Your task to perform on an android device: Go to ESPN.com Image 0: 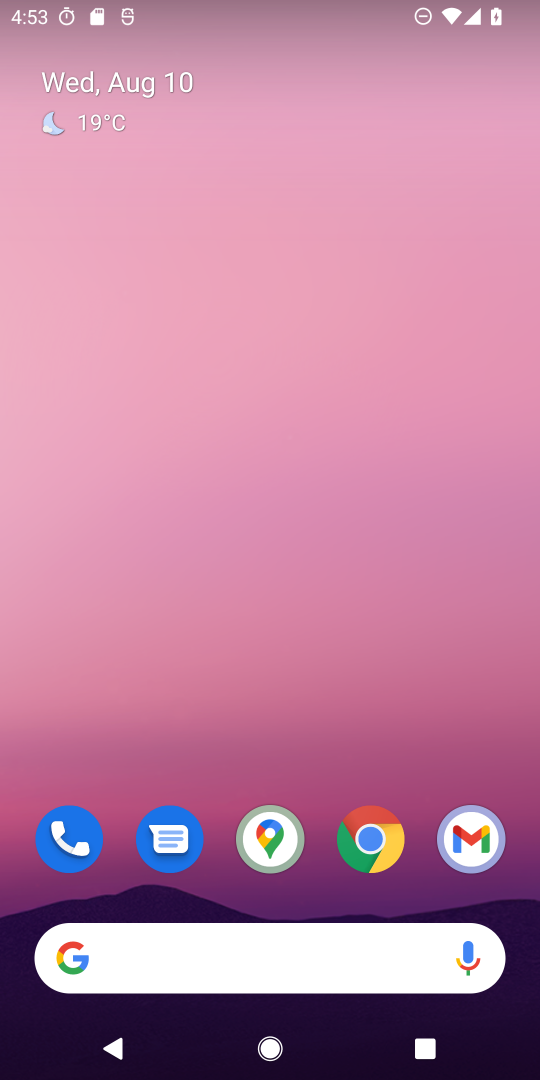
Step 0: click (231, 963)
Your task to perform on an android device: Go to ESPN.com Image 1: 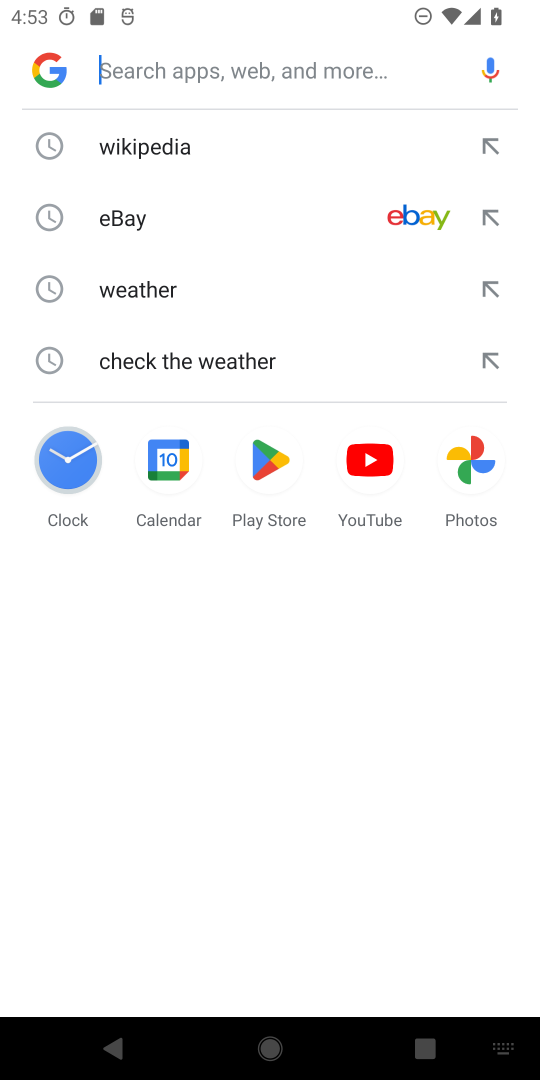
Step 1: type "ESPN.com"
Your task to perform on an android device: Go to ESPN.com Image 2: 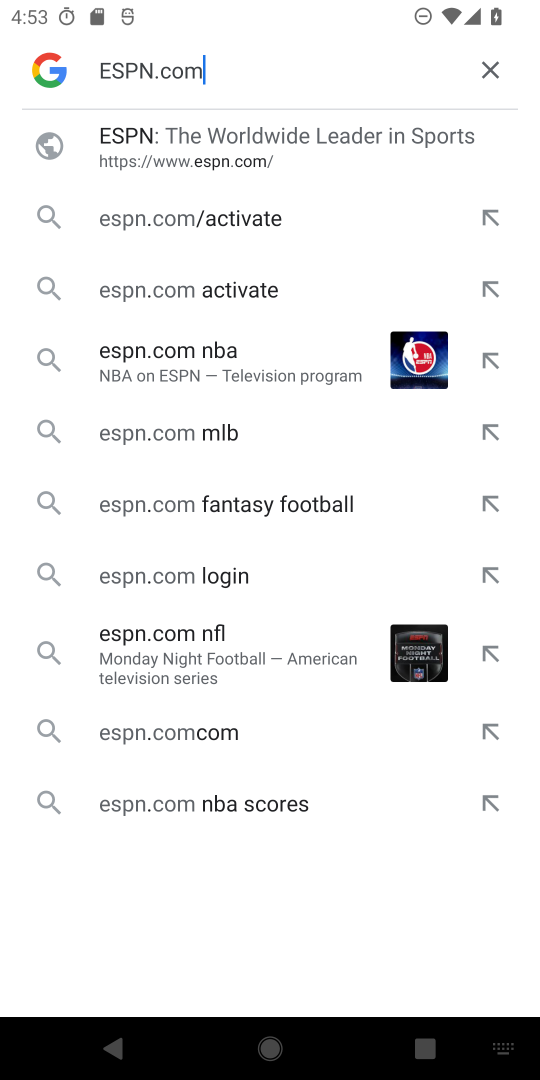
Step 2: click (94, 144)
Your task to perform on an android device: Go to ESPN.com Image 3: 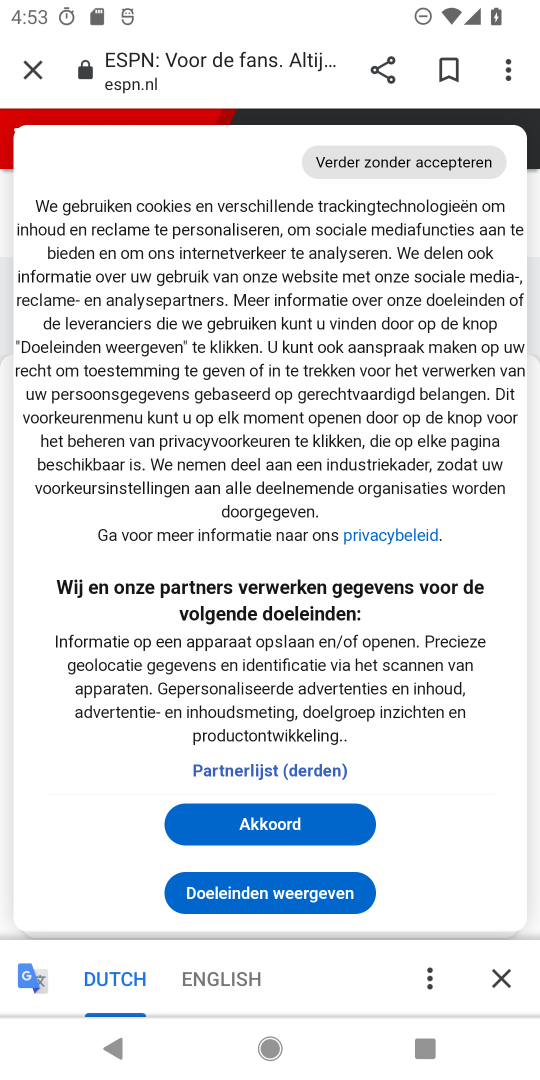
Step 3: task complete